Your task to perform on an android device: Open location settings Image 0: 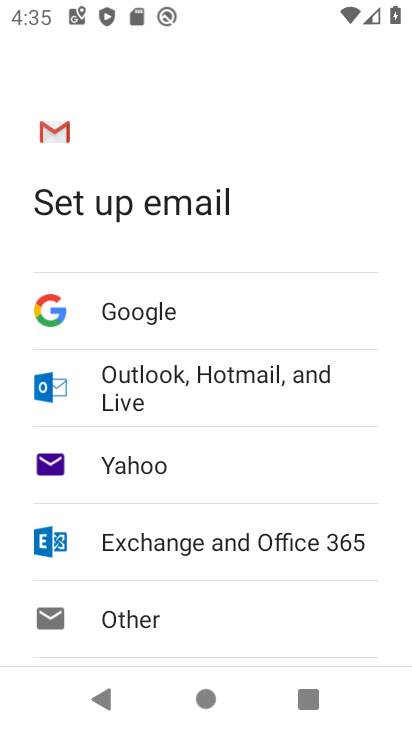
Step 0: drag from (242, 480) to (116, 151)
Your task to perform on an android device: Open location settings Image 1: 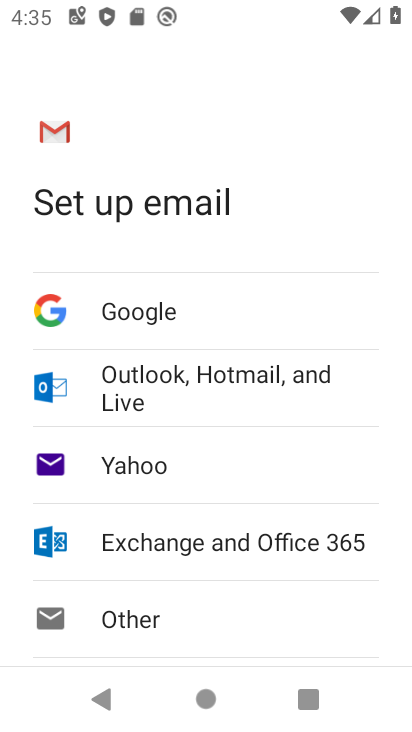
Step 1: press back button
Your task to perform on an android device: Open location settings Image 2: 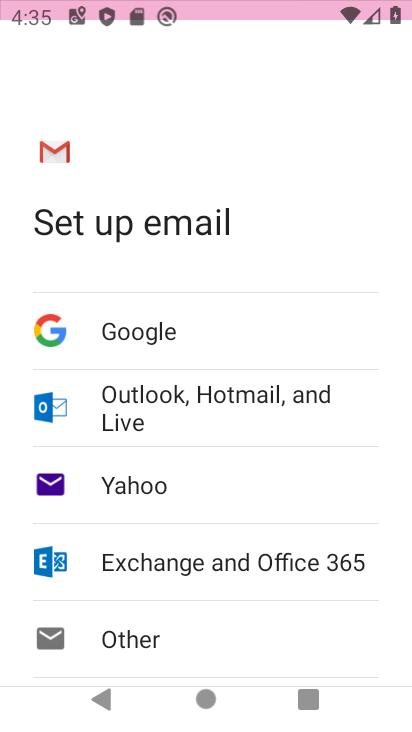
Step 2: press back button
Your task to perform on an android device: Open location settings Image 3: 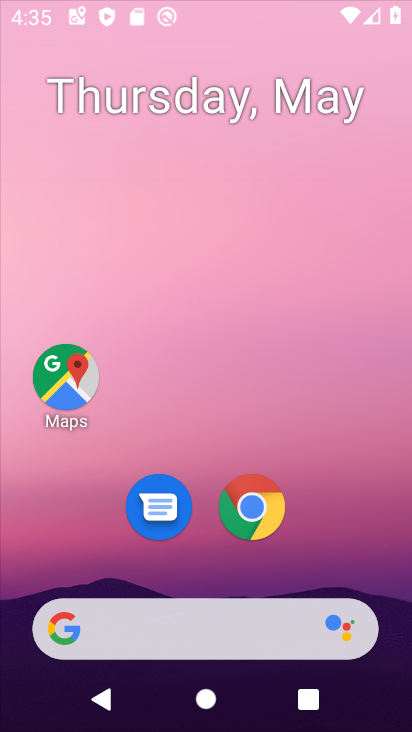
Step 3: press back button
Your task to perform on an android device: Open location settings Image 4: 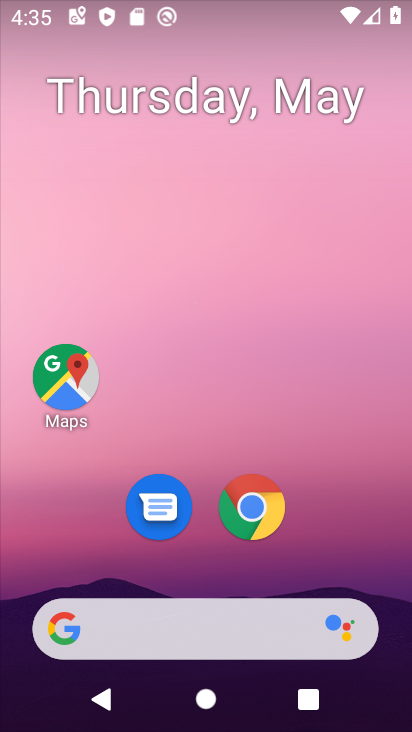
Step 4: drag from (322, 579) to (113, 68)
Your task to perform on an android device: Open location settings Image 5: 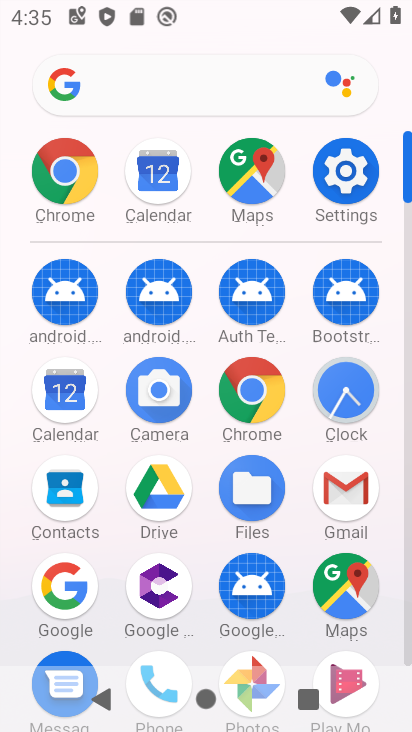
Step 5: click (342, 166)
Your task to perform on an android device: Open location settings Image 6: 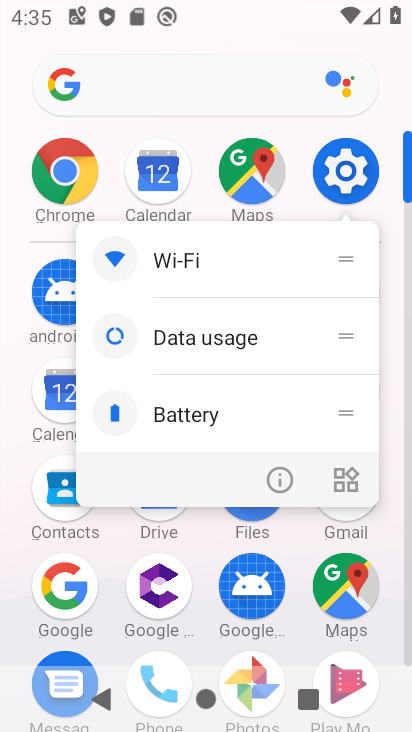
Step 6: click (343, 174)
Your task to perform on an android device: Open location settings Image 7: 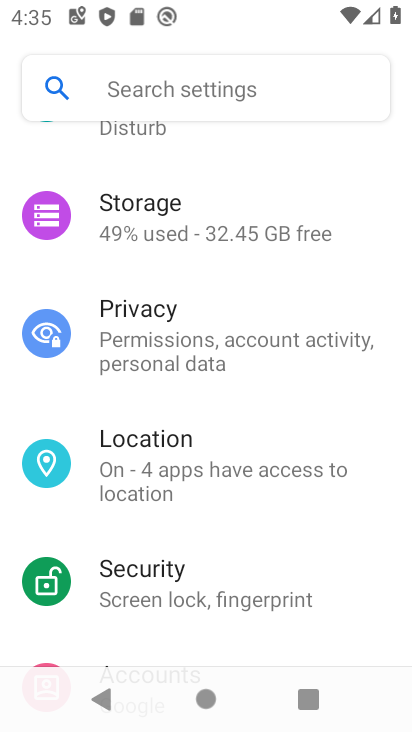
Step 7: click (160, 455)
Your task to perform on an android device: Open location settings Image 8: 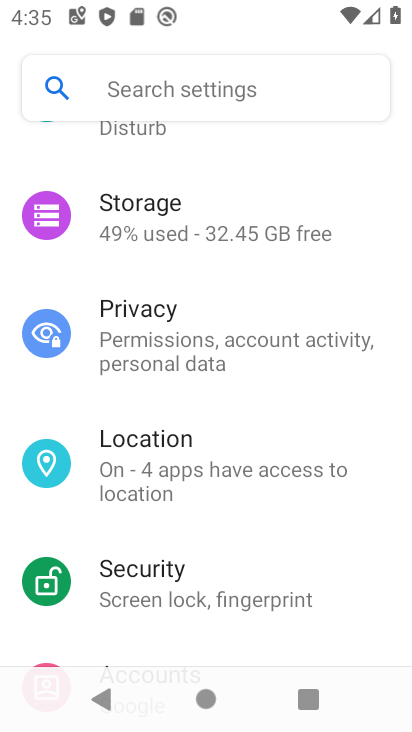
Step 8: click (160, 455)
Your task to perform on an android device: Open location settings Image 9: 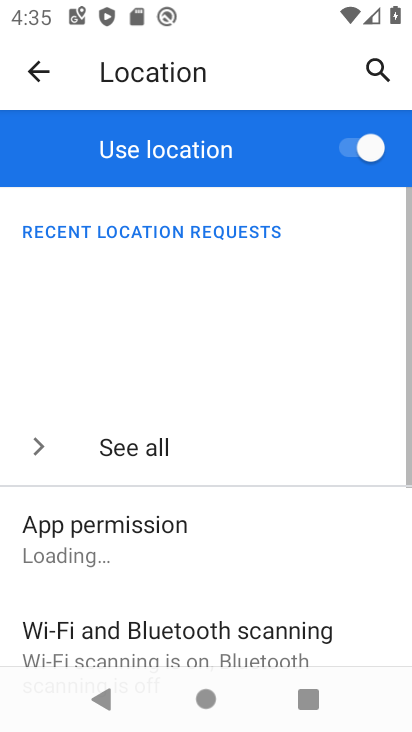
Step 9: click (160, 456)
Your task to perform on an android device: Open location settings Image 10: 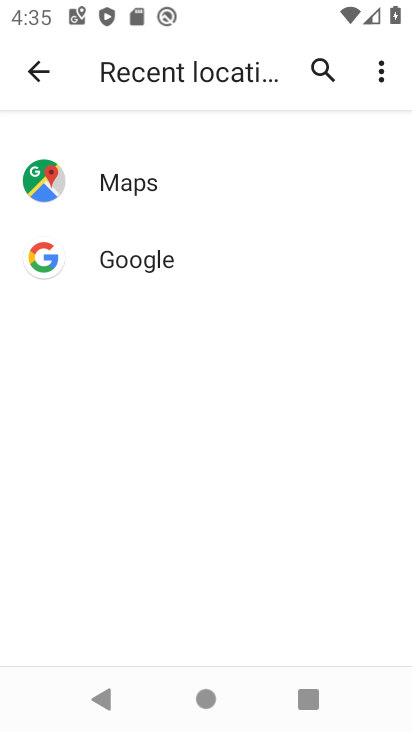
Step 10: click (129, 241)
Your task to perform on an android device: Open location settings Image 11: 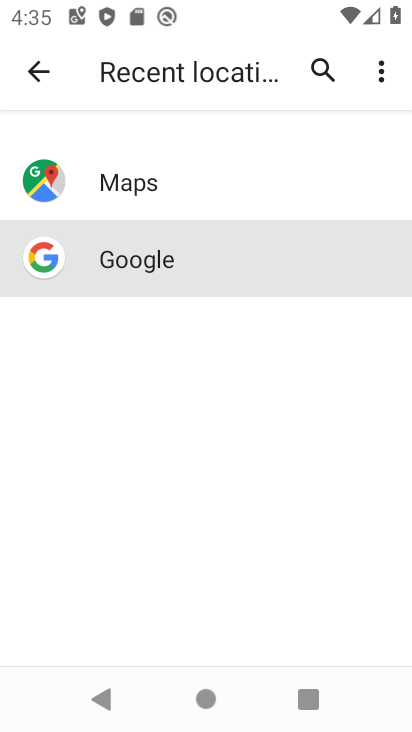
Step 11: click (35, 72)
Your task to perform on an android device: Open location settings Image 12: 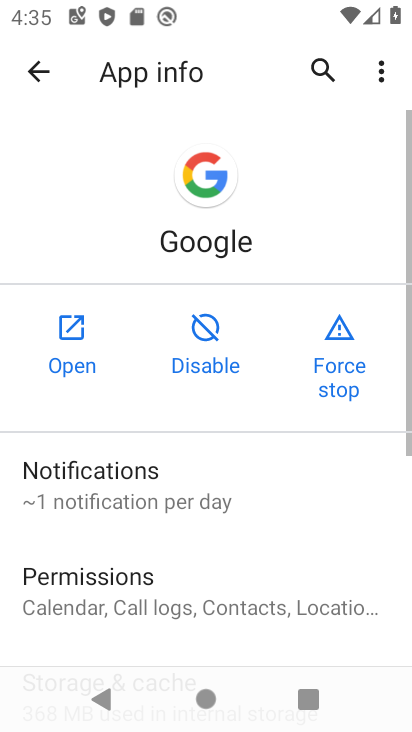
Step 12: click (42, 67)
Your task to perform on an android device: Open location settings Image 13: 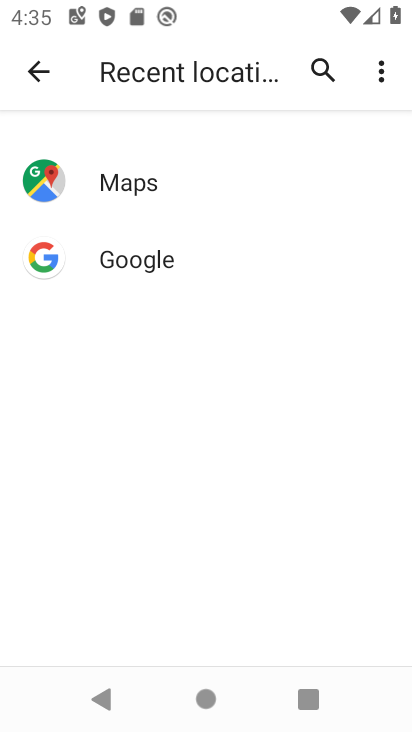
Step 13: click (36, 88)
Your task to perform on an android device: Open location settings Image 14: 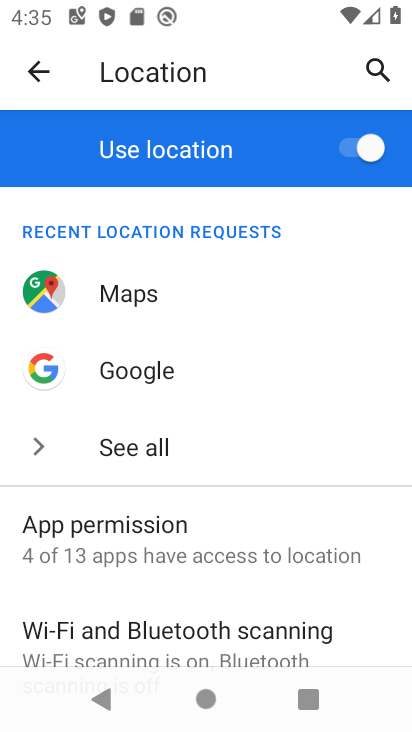
Step 14: task complete